Your task to perform on an android device: turn off picture-in-picture Image 0: 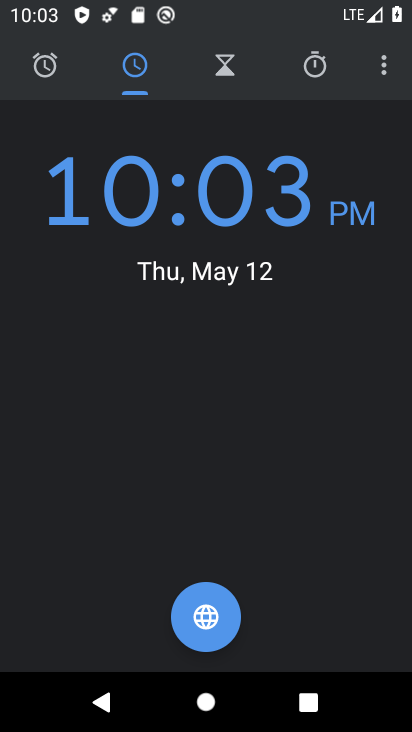
Step 0: press home button
Your task to perform on an android device: turn off picture-in-picture Image 1: 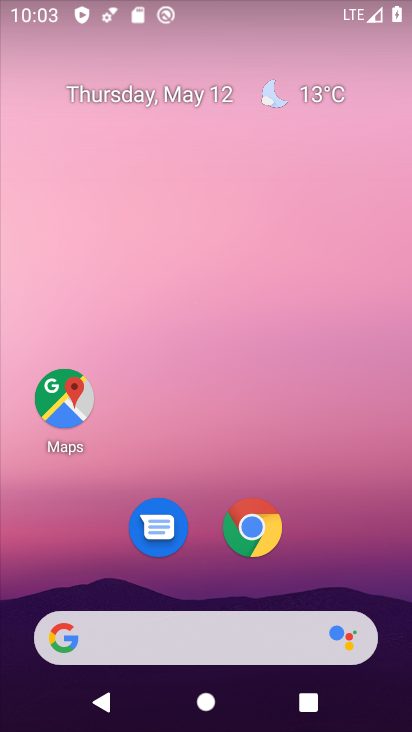
Step 1: click (254, 532)
Your task to perform on an android device: turn off picture-in-picture Image 2: 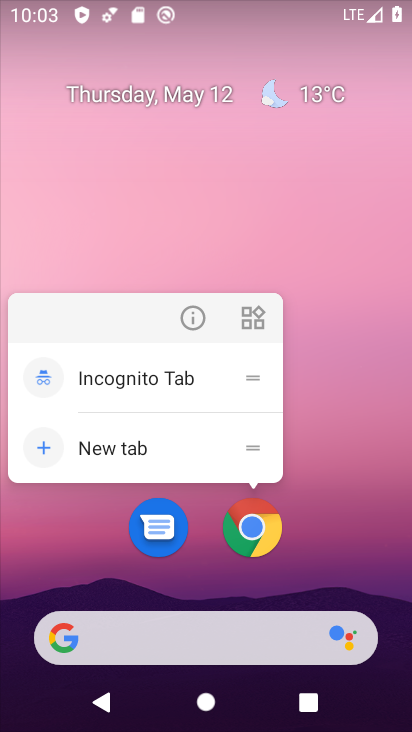
Step 2: click (189, 317)
Your task to perform on an android device: turn off picture-in-picture Image 3: 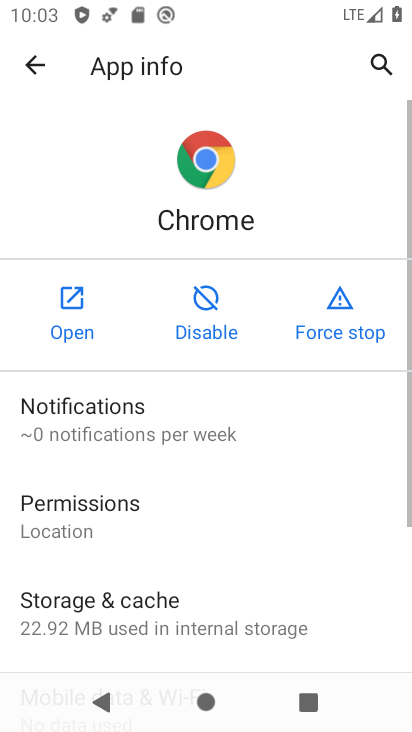
Step 3: drag from (168, 522) to (239, 332)
Your task to perform on an android device: turn off picture-in-picture Image 4: 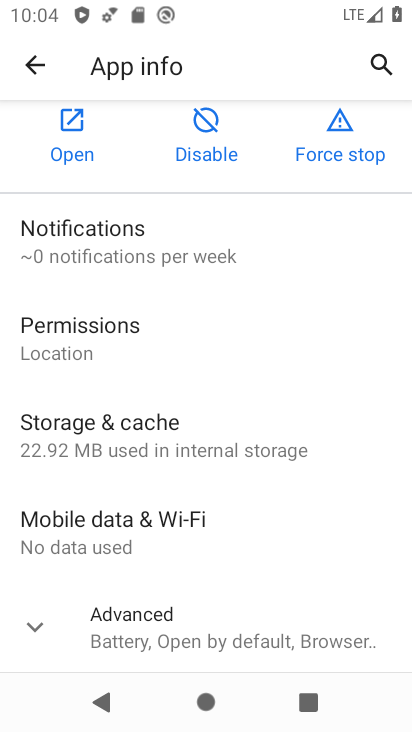
Step 4: click (165, 622)
Your task to perform on an android device: turn off picture-in-picture Image 5: 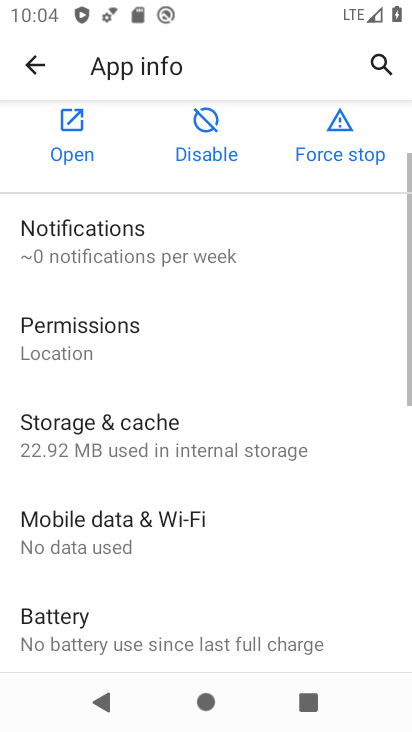
Step 5: drag from (165, 622) to (201, 422)
Your task to perform on an android device: turn off picture-in-picture Image 6: 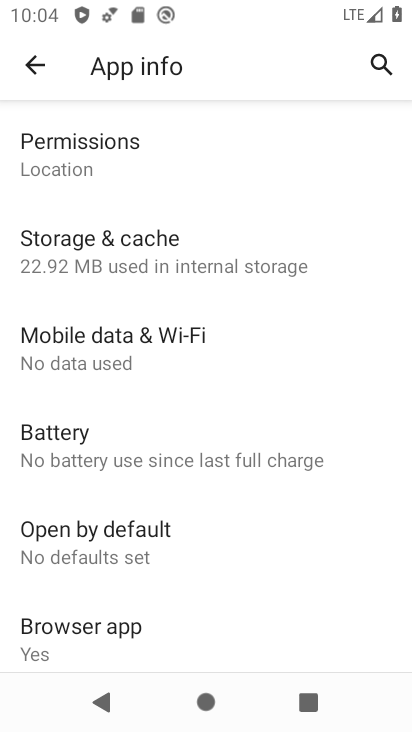
Step 6: drag from (164, 592) to (281, 411)
Your task to perform on an android device: turn off picture-in-picture Image 7: 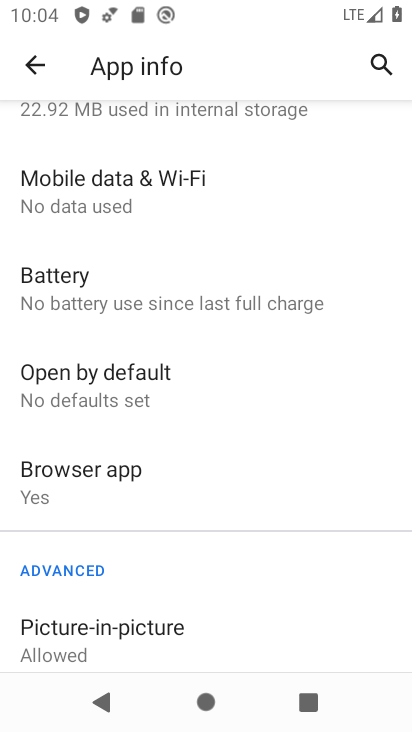
Step 7: click (154, 628)
Your task to perform on an android device: turn off picture-in-picture Image 8: 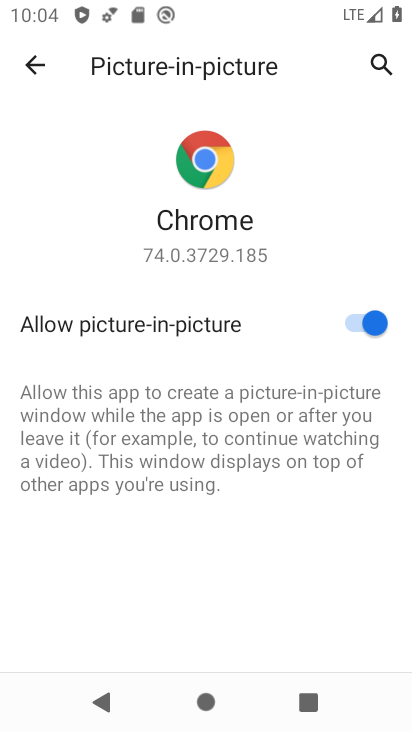
Step 8: click (363, 319)
Your task to perform on an android device: turn off picture-in-picture Image 9: 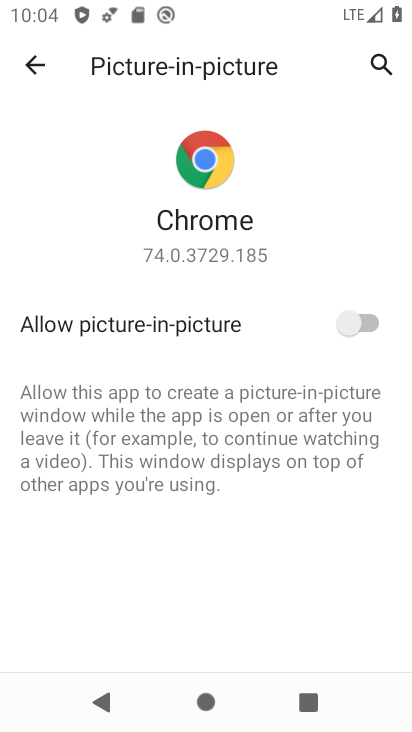
Step 9: task complete